Your task to perform on an android device: Open calendar and show me the second week of next month Image 0: 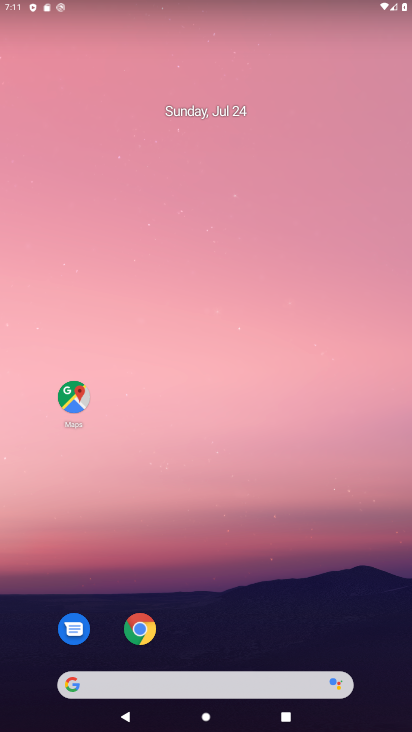
Step 0: drag from (339, 515) to (283, 1)
Your task to perform on an android device: Open calendar and show me the second week of next month Image 1: 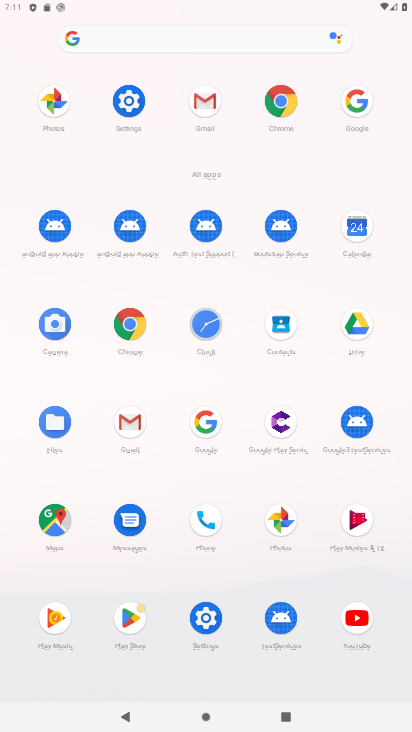
Step 1: click (342, 231)
Your task to perform on an android device: Open calendar and show me the second week of next month Image 2: 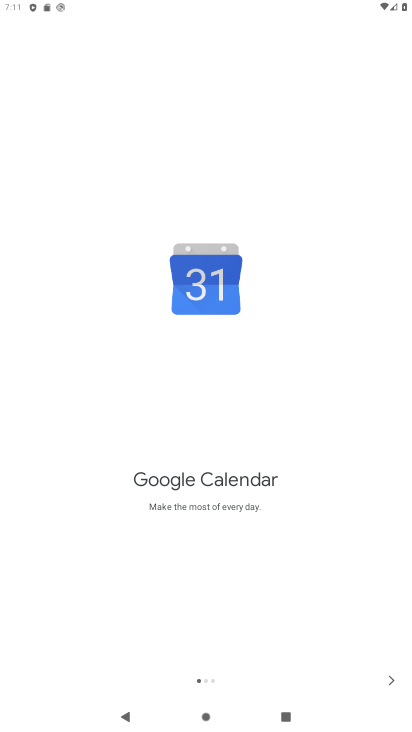
Step 2: click (392, 683)
Your task to perform on an android device: Open calendar and show me the second week of next month Image 3: 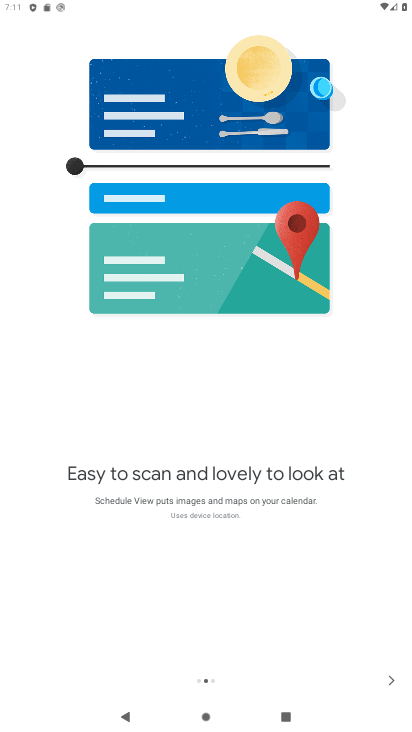
Step 3: click (392, 683)
Your task to perform on an android device: Open calendar and show me the second week of next month Image 4: 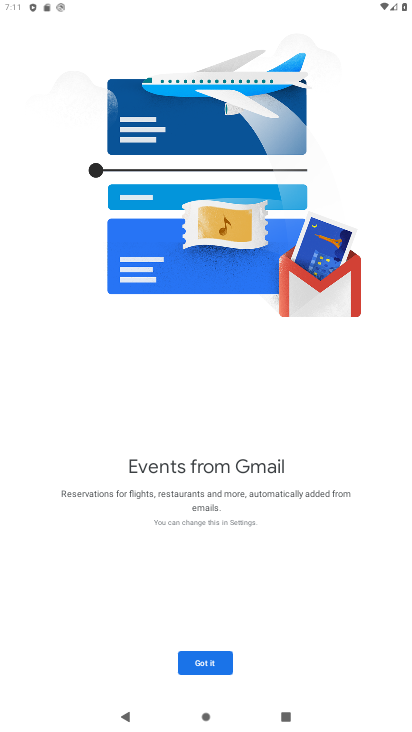
Step 4: click (223, 663)
Your task to perform on an android device: Open calendar and show me the second week of next month Image 5: 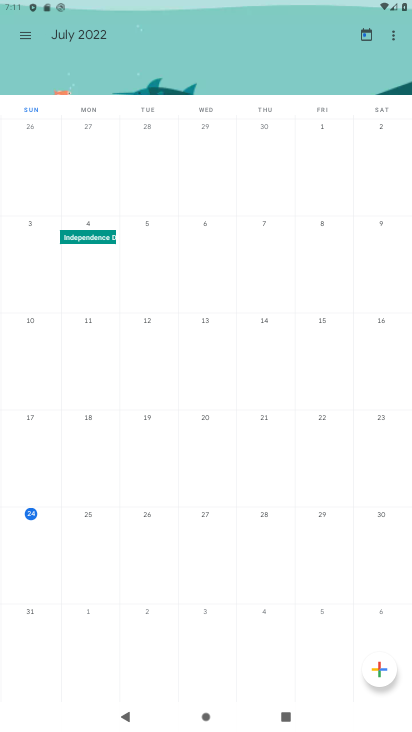
Step 5: drag from (373, 307) to (26, 311)
Your task to perform on an android device: Open calendar and show me the second week of next month Image 6: 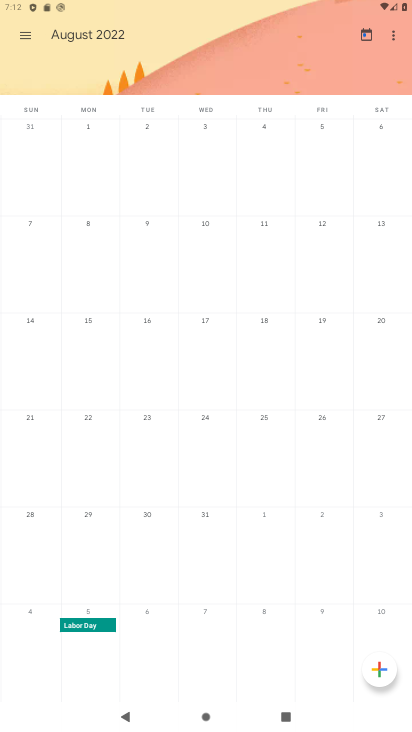
Step 6: click (33, 234)
Your task to perform on an android device: Open calendar and show me the second week of next month Image 7: 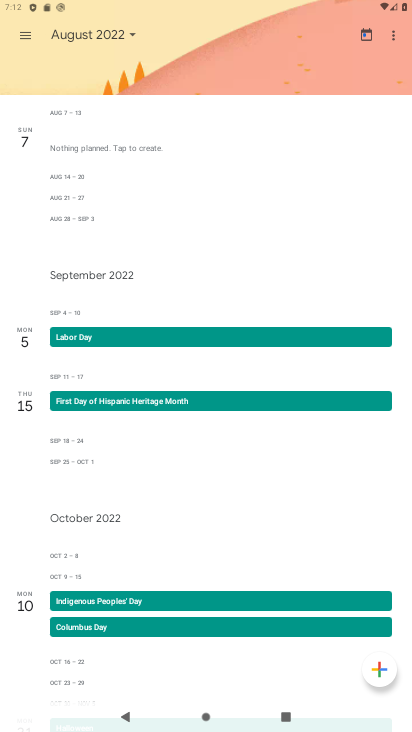
Step 7: task complete